Your task to perform on an android device: empty trash in the gmail app Image 0: 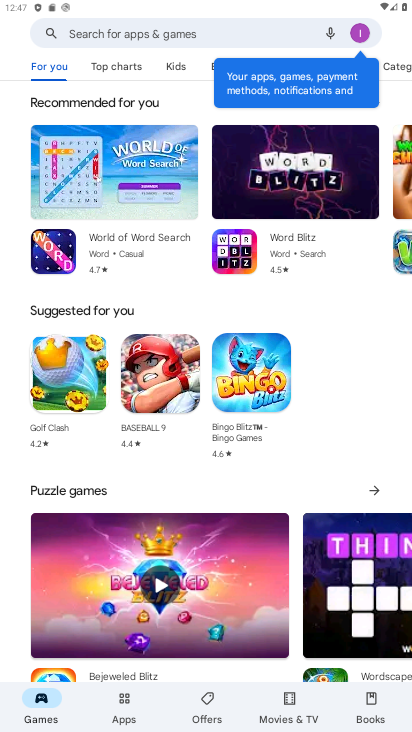
Step 0: press home button
Your task to perform on an android device: empty trash in the gmail app Image 1: 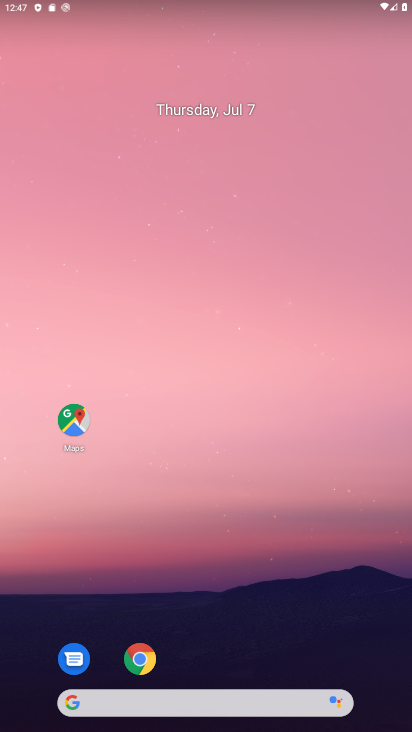
Step 1: drag from (230, 638) to (351, 87)
Your task to perform on an android device: empty trash in the gmail app Image 2: 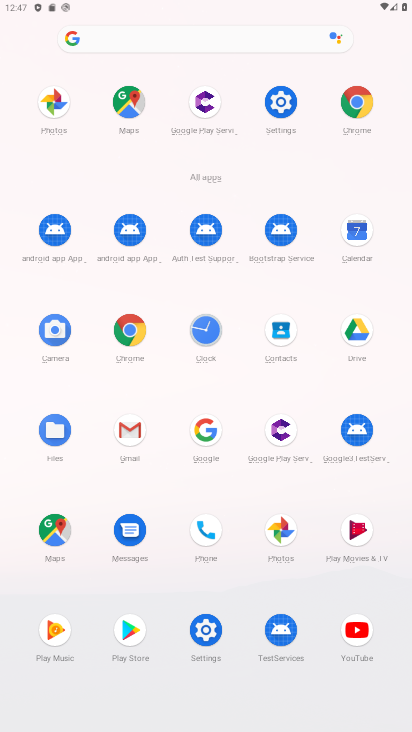
Step 2: click (130, 451)
Your task to perform on an android device: empty trash in the gmail app Image 3: 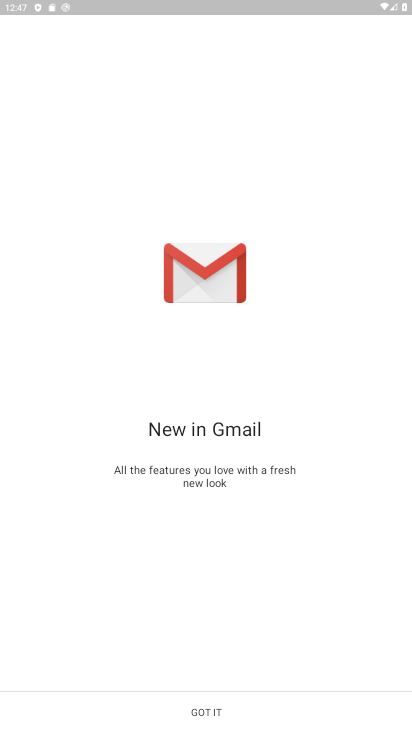
Step 3: click (171, 706)
Your task to perform on an android device: empty trash in the gmail app Image 4: 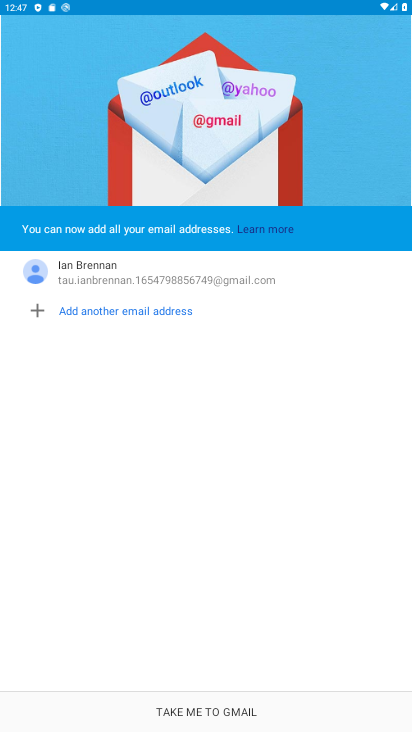
Step 4: click (208, 707)
Your task to perform on an android device: empty trash in the gmail app Image 5: 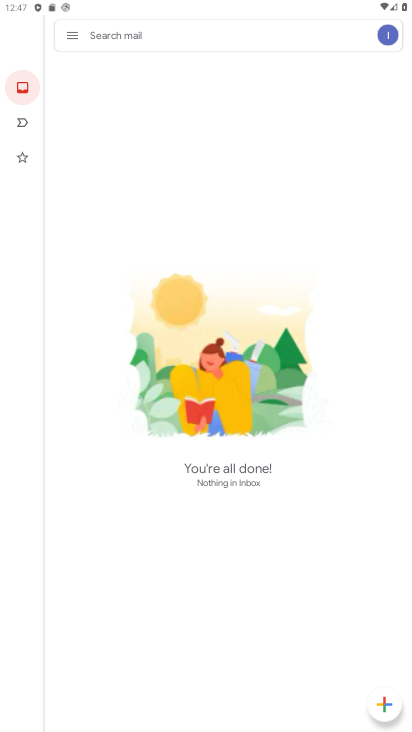
Step 5: click (82, 41)
Your task to perform on an android device: empty trash in the gmail app Image 6: 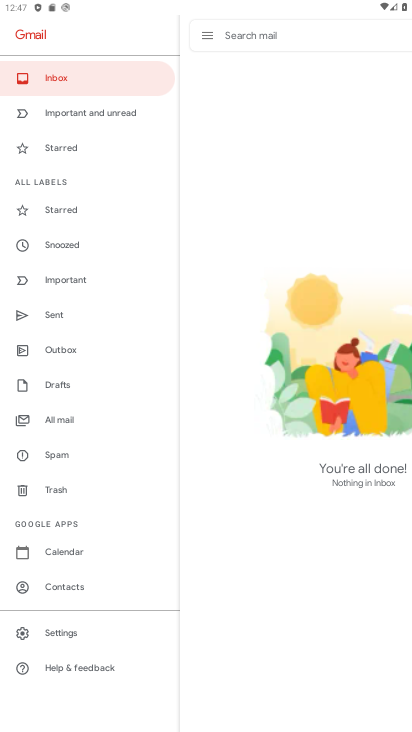
Step 6: click (76, 492)
Your task to perform on an android device: empty trash in the gmail app Image 7: 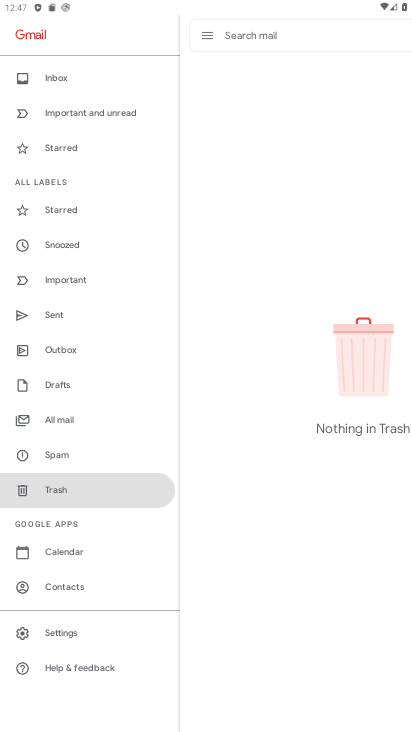
Step 7: task complete